Your task to perform on an android device: install app "Spotify: Music and Podcasts" Image 0: 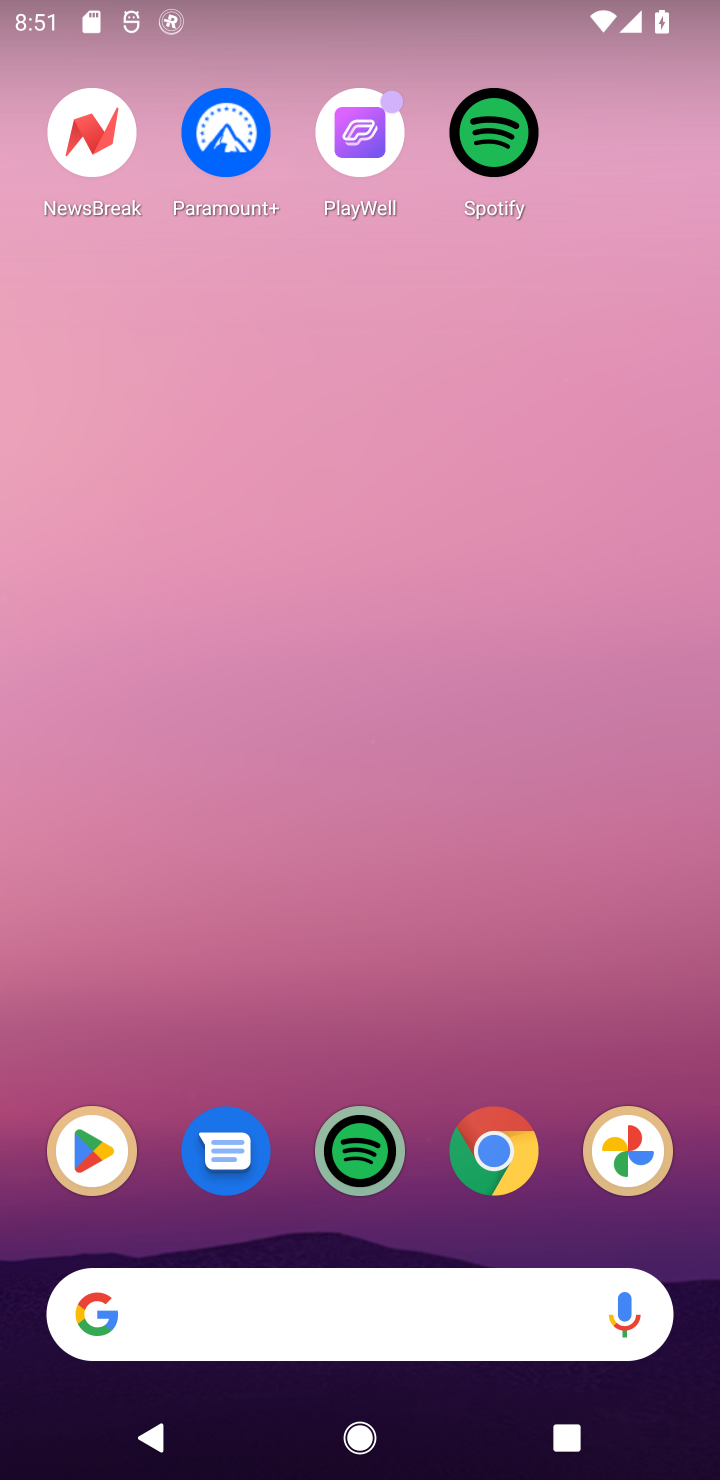
Step 0: click (82, 1147)
Your task to perform on an android device: install app "Spotify: Music and Podcasts" Image 1: 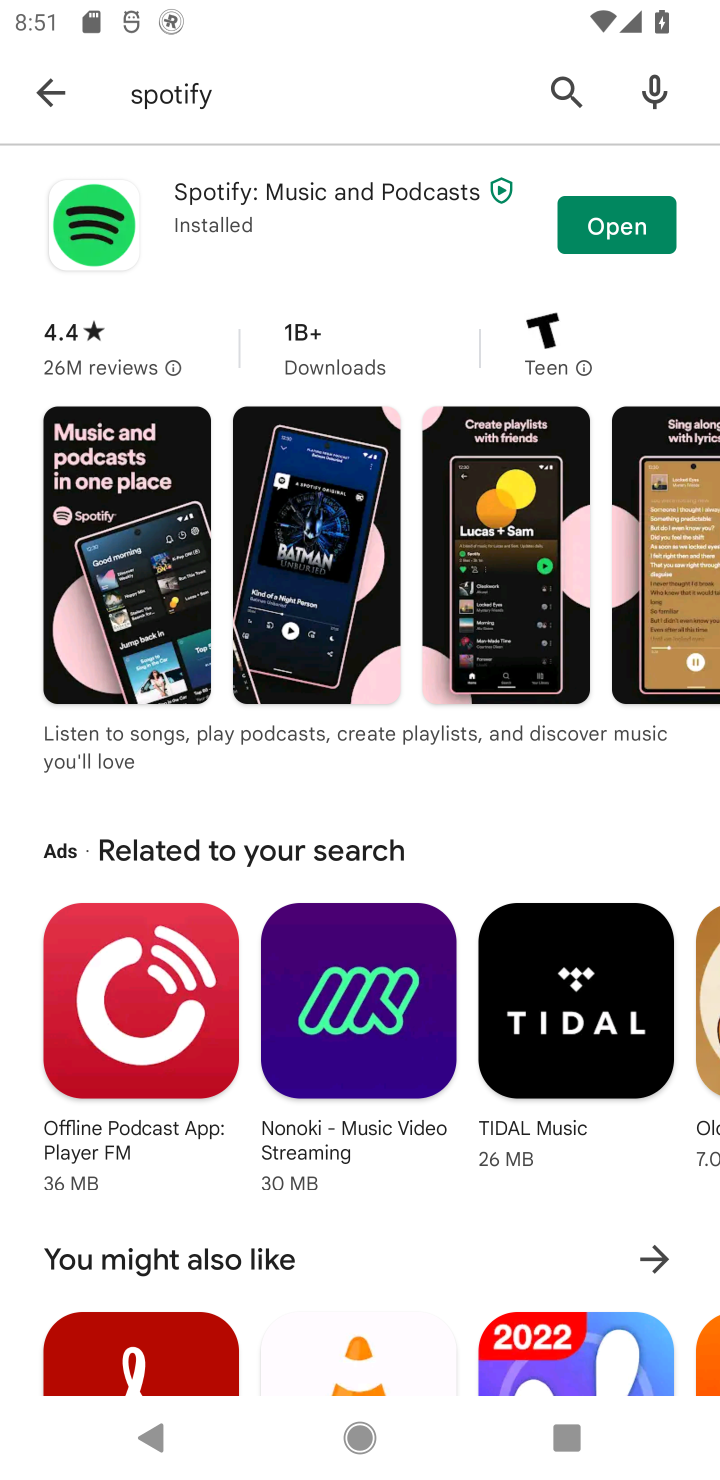
Step 1: click (557, 95)
Your task to perform on an android device: install app "Spotify: Music and Podcasts" Image 2: 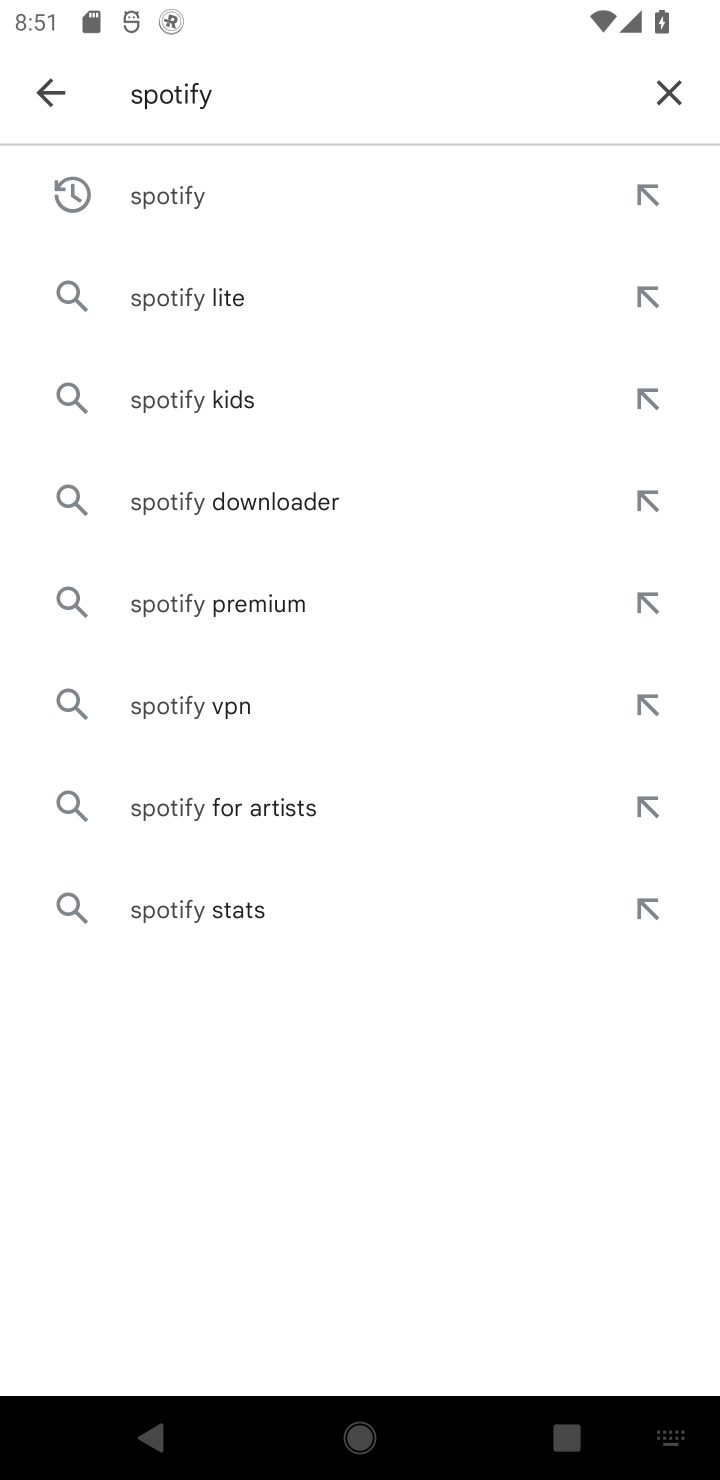
Step 2: click (278, 202)
Your task to perform on an android device: install app "Spotify: Music and Podcasts" Image 3: 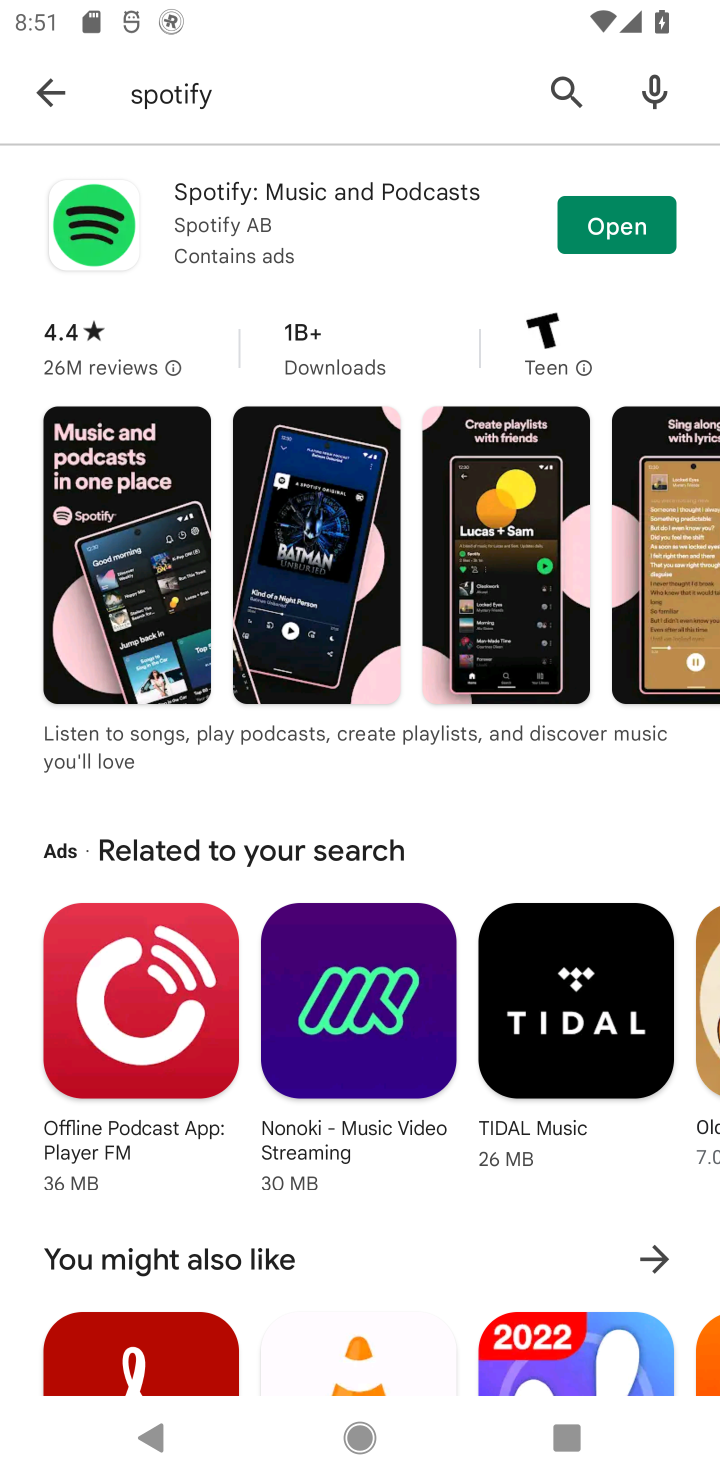
Step 3: task complete